Your task to perform on an android device: toggle show notifications on the lock screen Image 0: 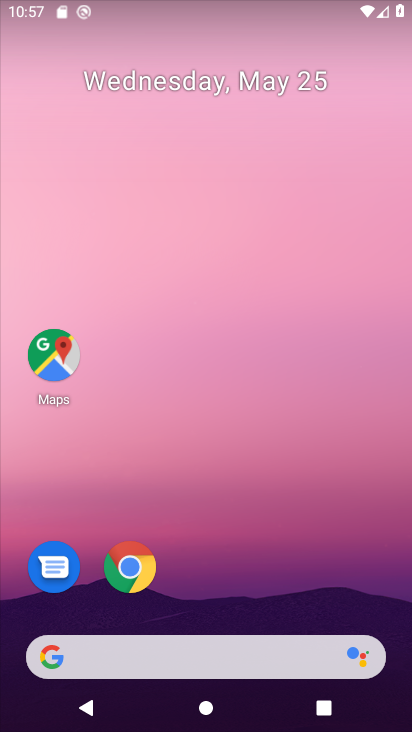
Step 0: drag from (213, 584) to (138, 44)
Your task to perform on an android device: toggle show notifications on the lock screen Image 1: 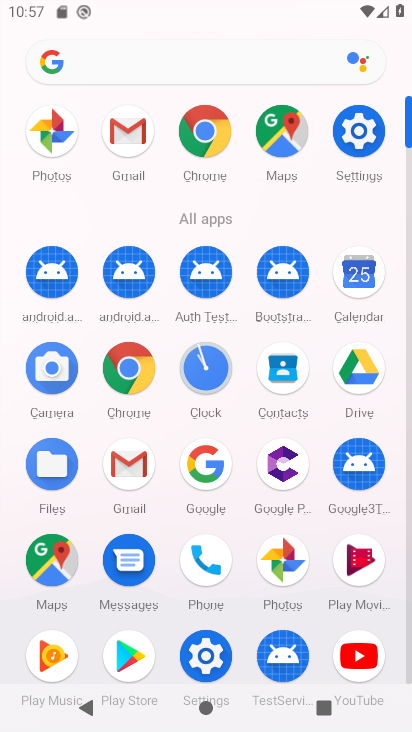
Step 1: click (366, 115)
Your task to perform on an android device: toggle show notifications on the lock screen Image 2: 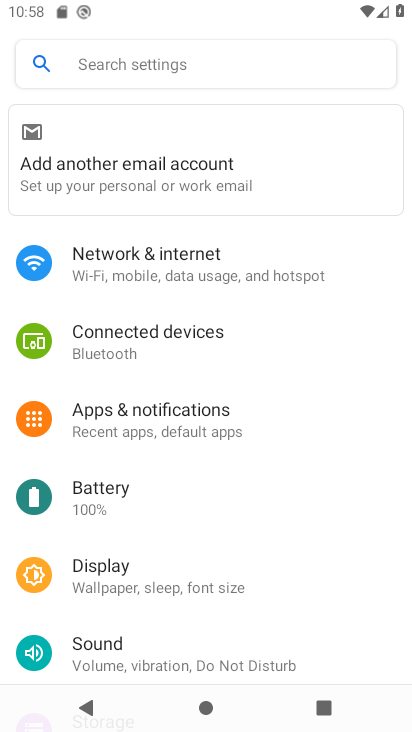
Step 2: click (188, 433)
Your task to perform on an android device: toggle show notifications on the lock screen Image 3: 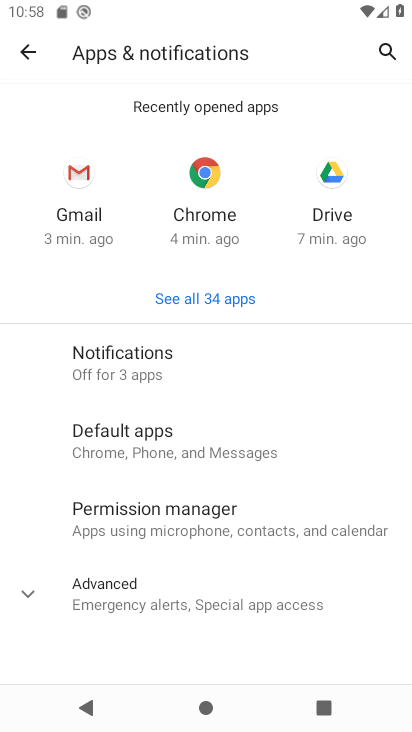
Step 3: click (171, 352)
Your task to perform on an android device: toggle show notifications on the lock screen Image 4: 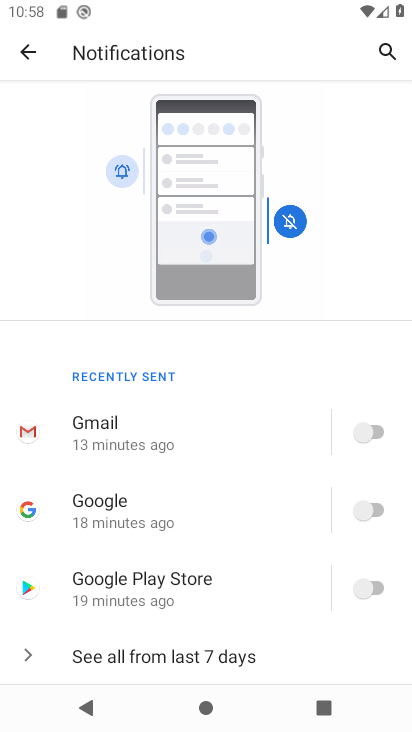
Step 4: drag from (290, 588) to (323, 65)
Your task to perform on an android device: toggle show notifications on the lock screen Image 5: 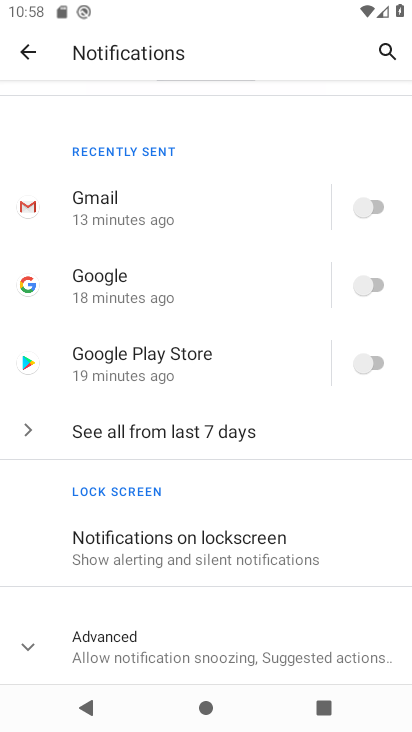
Step 5: click (158, 540)
Your task to perform on an android device: toggle show notifications on the lock screen Image 6: 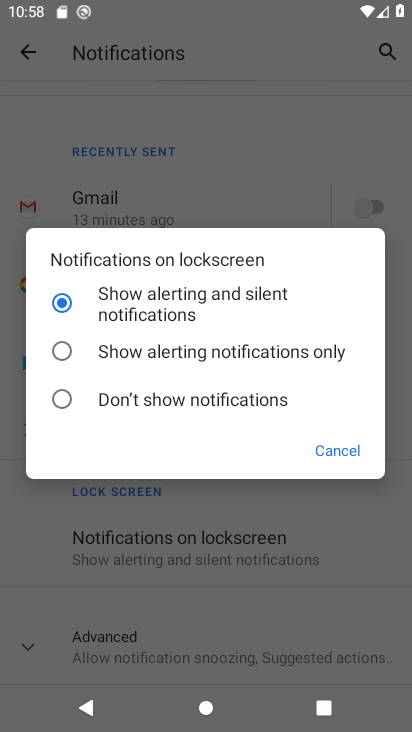
Step 6: click (60, 351)
Your task to perform on an android device: toggle show notifications on the lock screen Image 7: 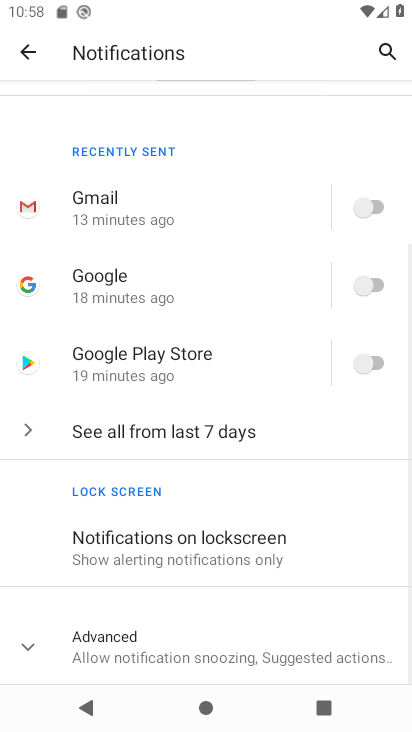
Step 7: task complete